Your task to perform on an android device: uninstall "Truecaller" Image 0: 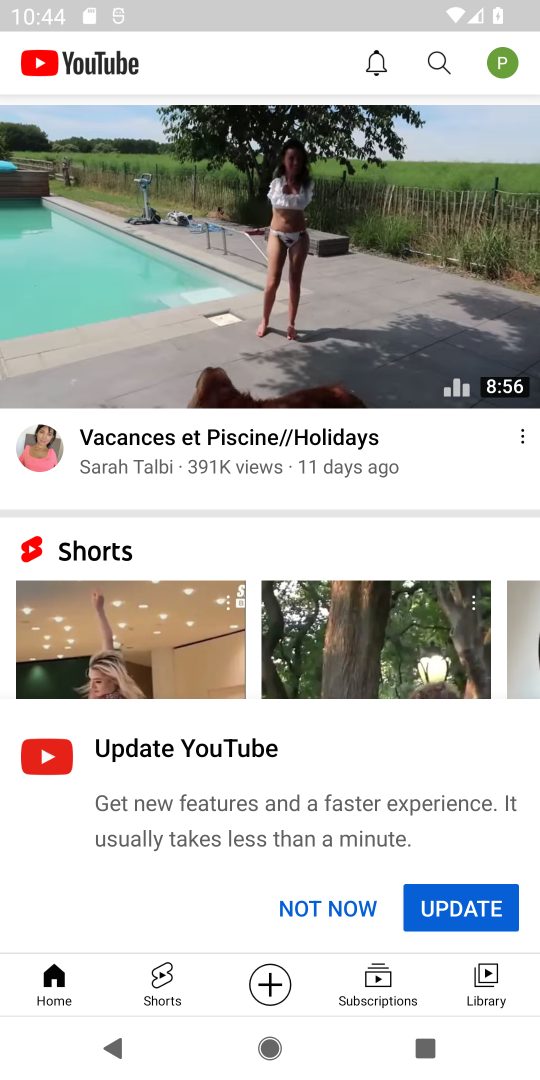
Step 0: press home button
Your task to perform on an android device: uninstall "Truecaller" Image 1: 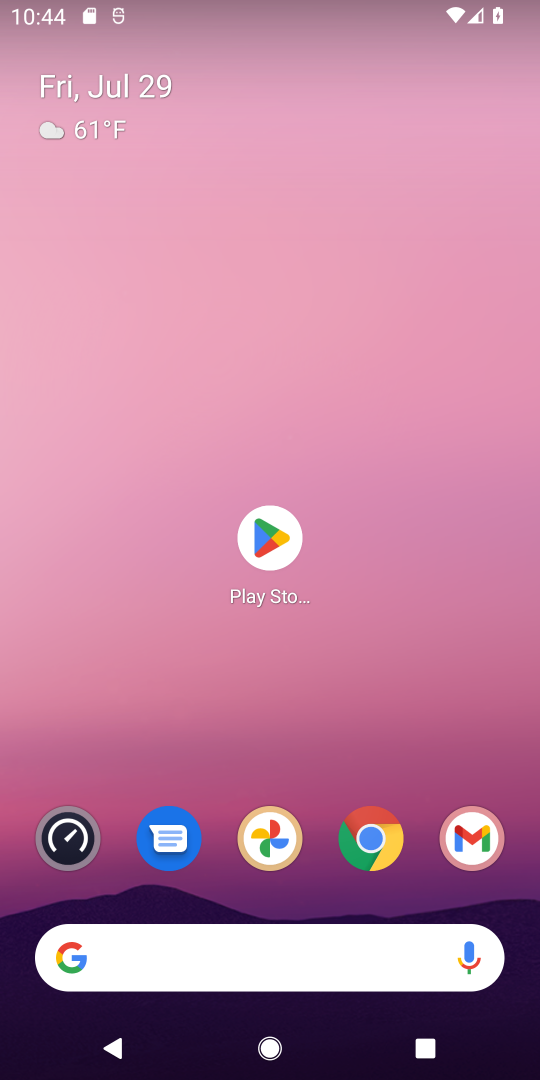
Step 1: click (265, 537)
Your task to perform on an android device: uninstall "Truecaller" Image 2: 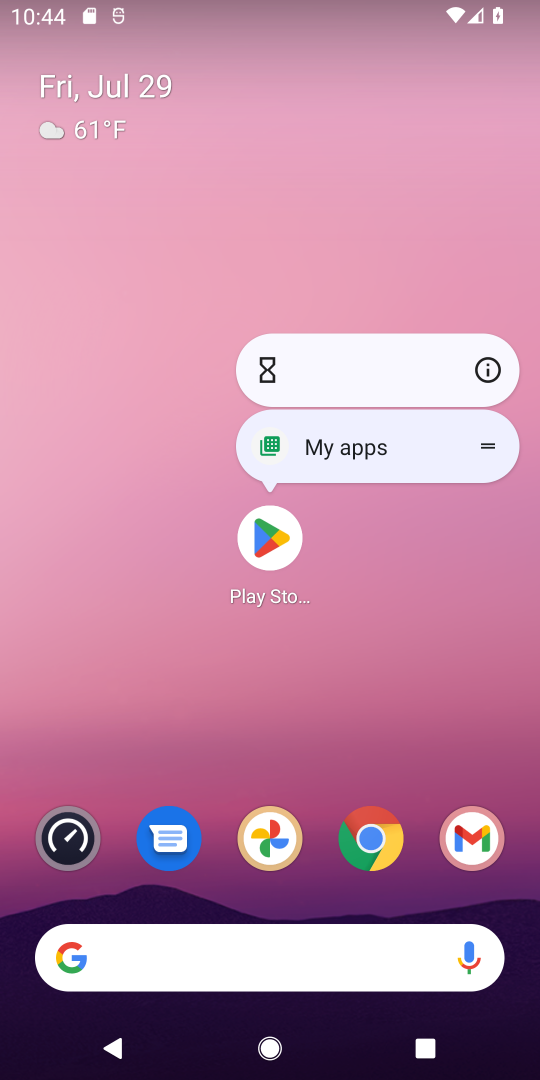
Step 2: click (270, 542)
Your task to perform on an android device: uninstall "Truecaller" Image 3: 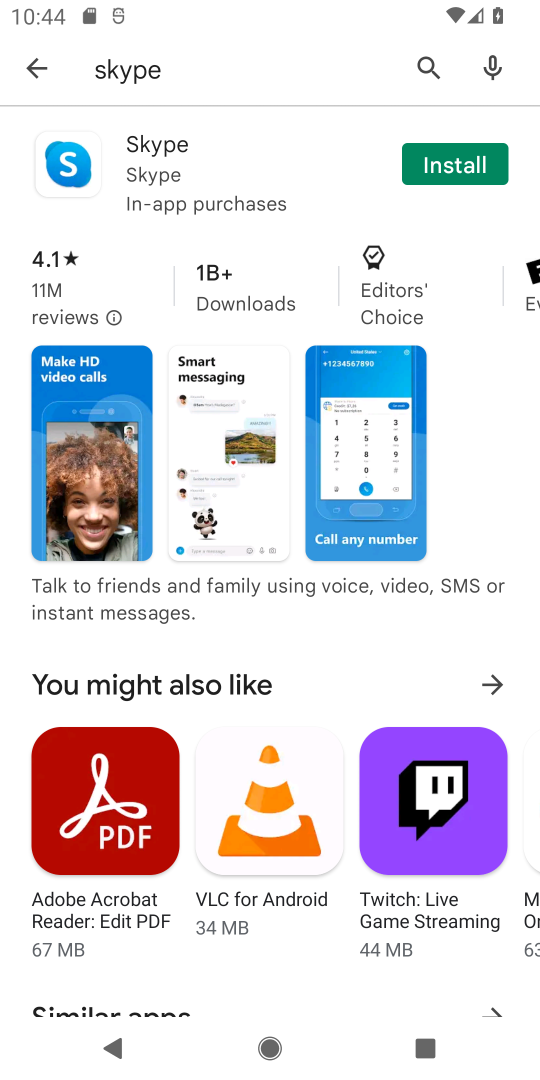
Step 3: click (419, 61)
Your task to perform on an android device: uninstall "Truecaller" Image 4: 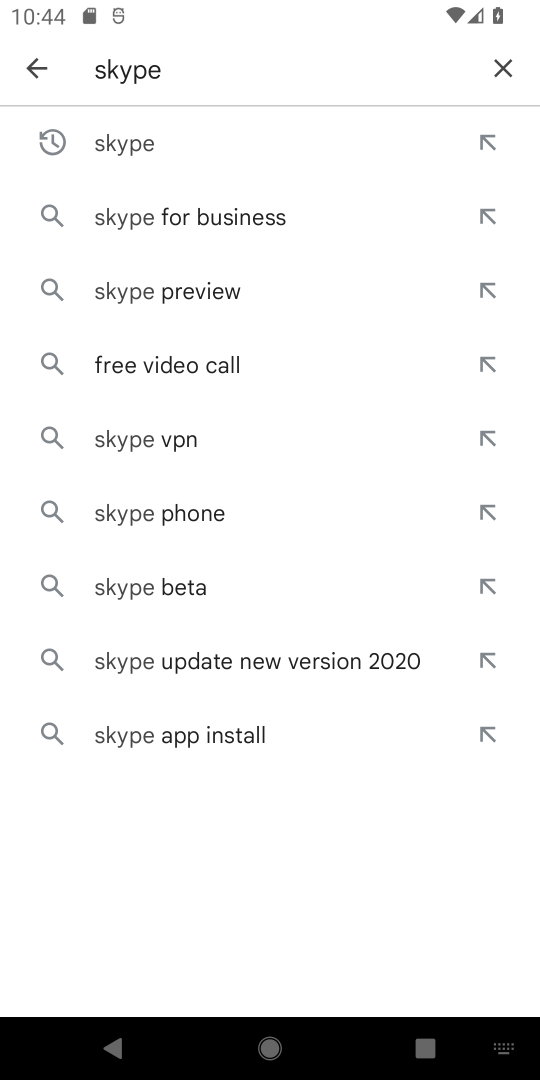
Step 4: click (498, 55)
Your task to perform on an android device: uninstall "Truecaller" Image 5: 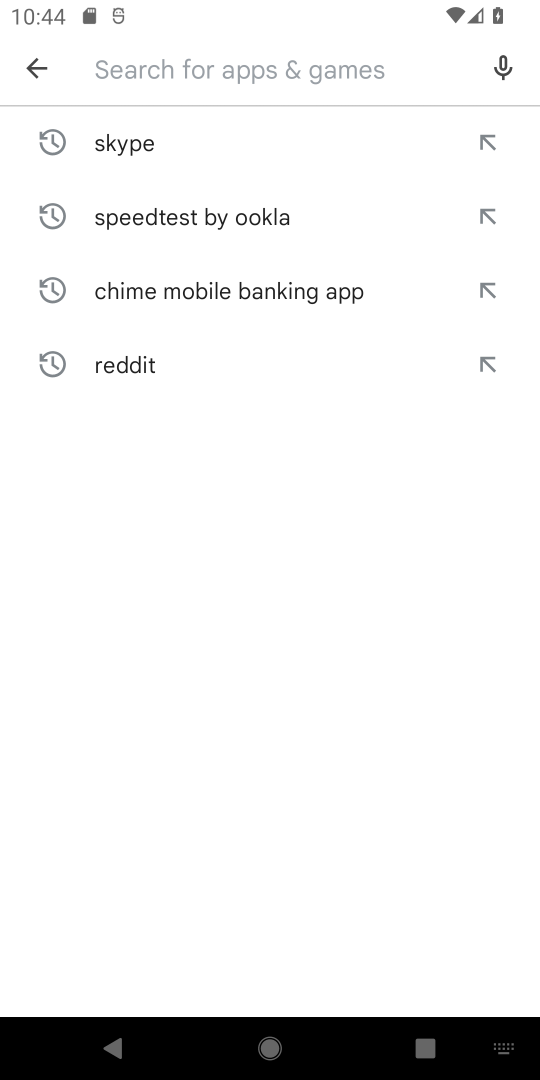
Step 5: type "Truecaller"
Your task to perform on an android device: uninstall "Truecaller" Image 6: 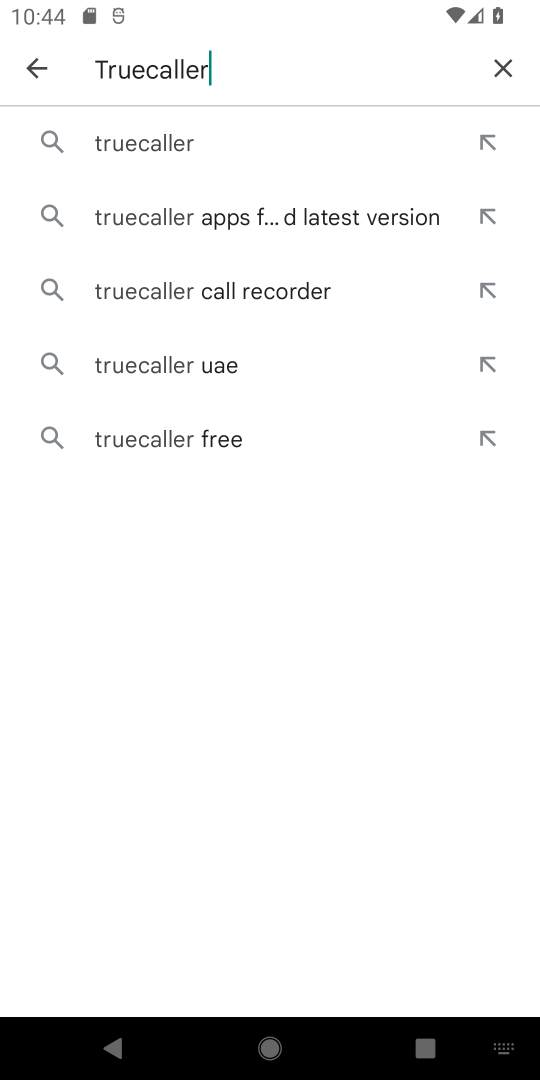
Step 6: click (143, 151)
Your task to perform on an android device: uninstall "Truecaller" Image 7: 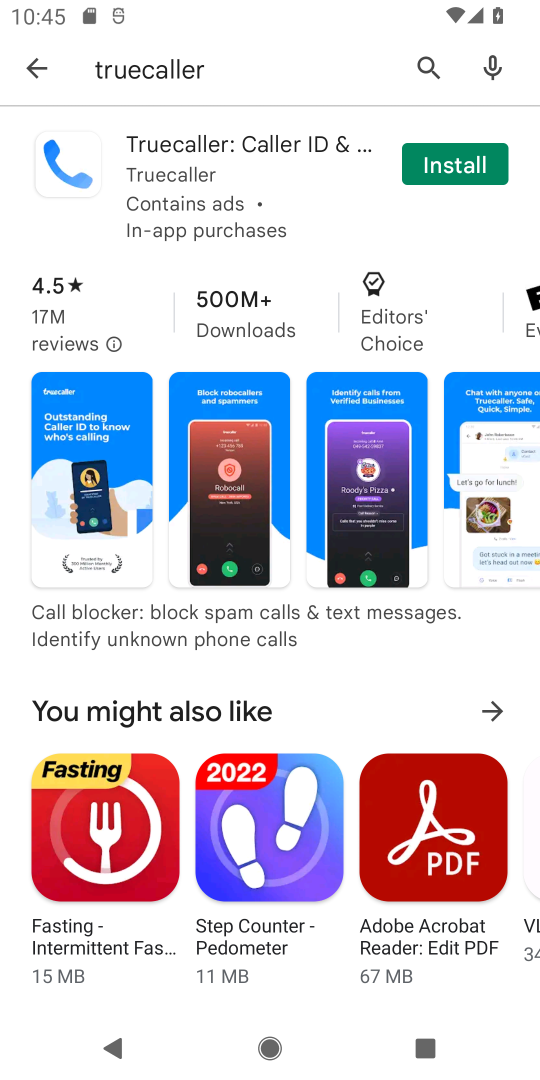
Step 7: task complete